Your task to perform on an android device: turn off javascript in the chrome app Image 0: 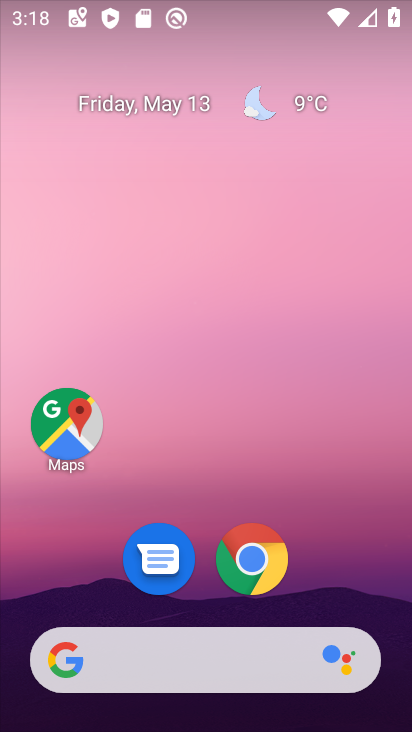
Step 0: click (255, 560)
Your task to perform on an android device: turn off javascript in the chrome app Image 1: 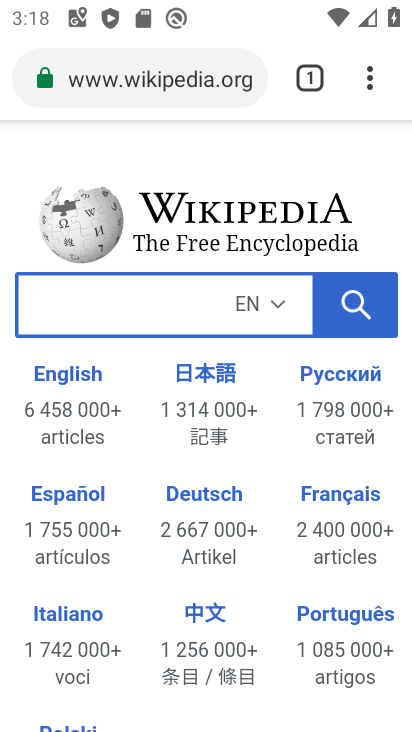
Step 1: click (371, 85)
Your task to perform on an android device: turn off javascript in the chrome app Image 2: 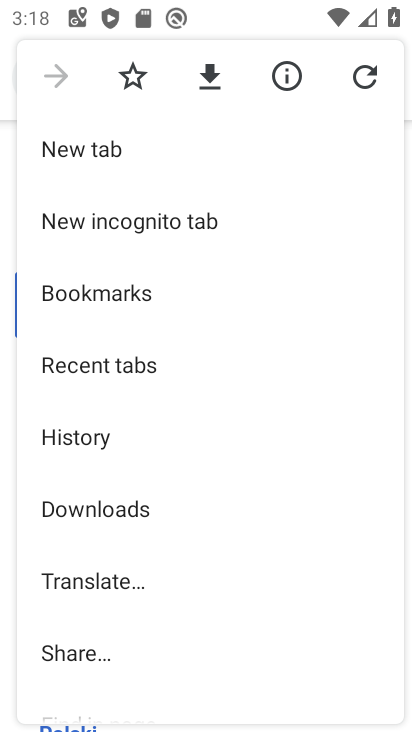
Step 2: drag from (177, 549) to (239, 302)
Your task to perform on an android device: turn off javascript in the chrome app Image 3: 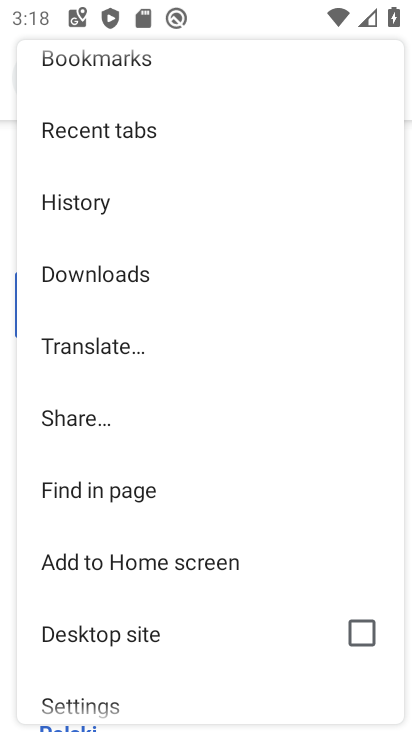
Step 3: drag from (211, 680) to (296, 301)
Your task to perform on an android device: turn off javascript in the chrome app Image 4: 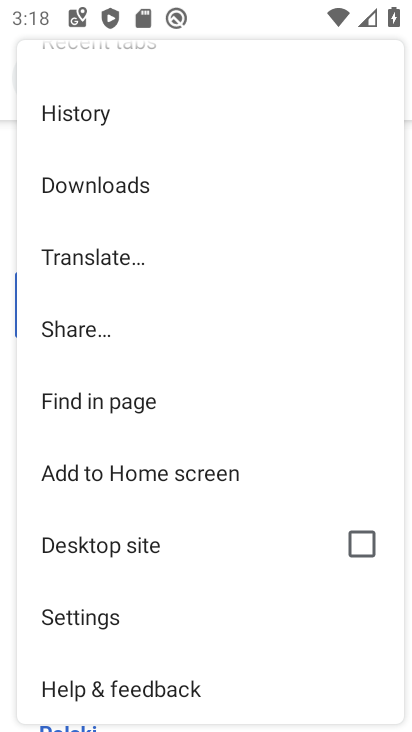
Step 4: click (83, 621)
Your task to perform on an android device: turn off javascript in the chrome app Image 5: 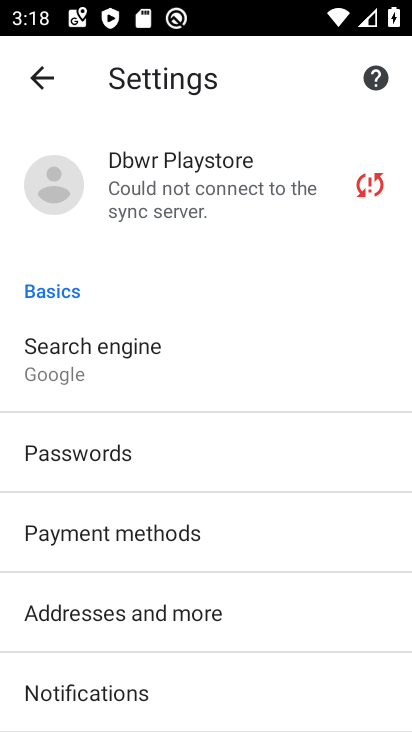
Step 5: drag from (308, 674) to (231, 84)
Your task to perform on an android device: turn off javascript in the chrome app Image 6: 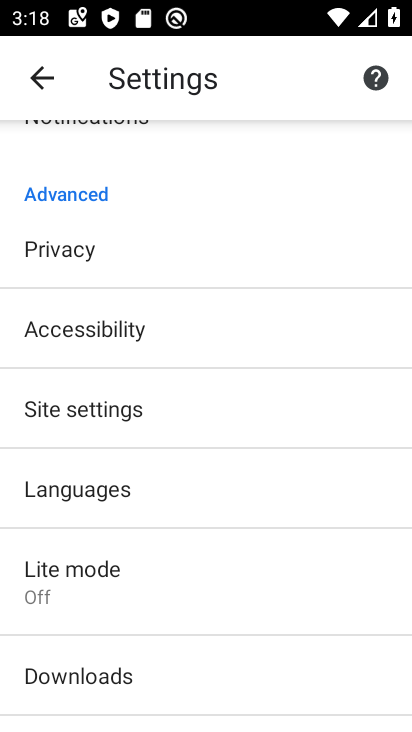
Step 6: click (94, 401)
Your task to perform on an android device: turn off javascript in the chrome app Image 7: 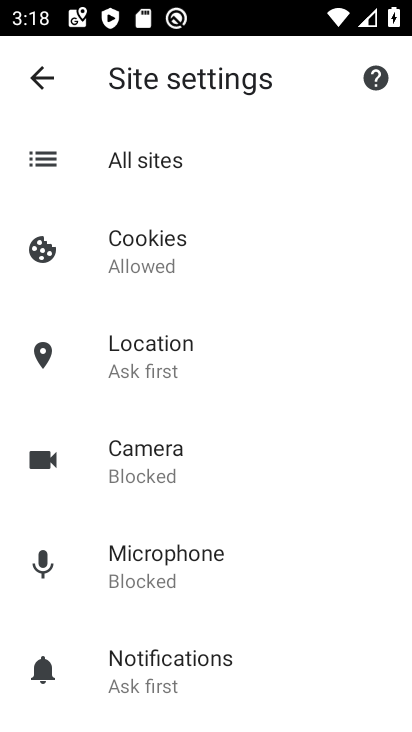
Step 7: drag from (257, 623) to (272, 241)
Your task to perform on an android device: turn off javascript in the chrome app Image 8: 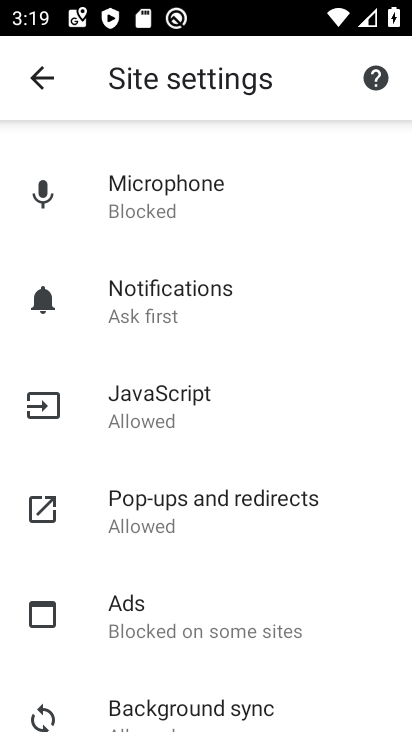
Step 8: click (136, 411)
Your task to perform on an android device: turn off javascript in the chrome app Image 9: 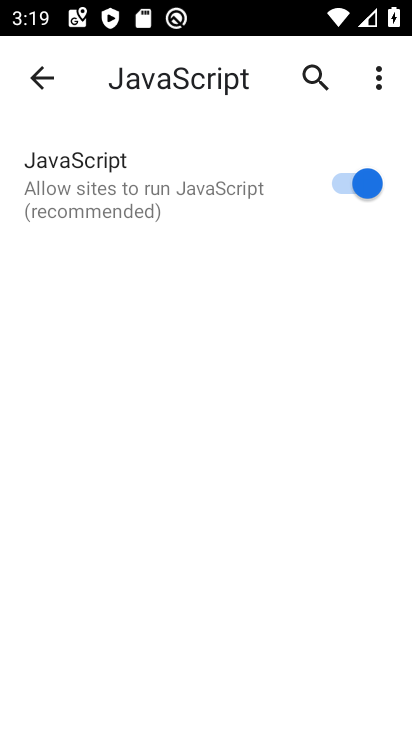
Step 9: click (334, 185)
Your task to perform on an android device: turn off javascript in the chrome app Image 10: 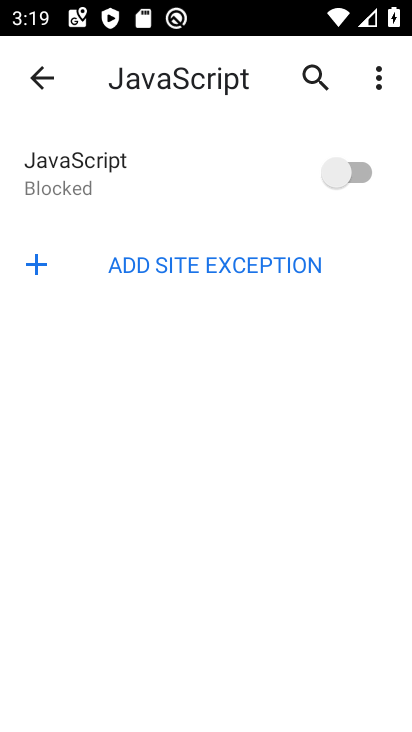
Step 10: task complete